Your task to perform on an android device: Check the weather Image 0: 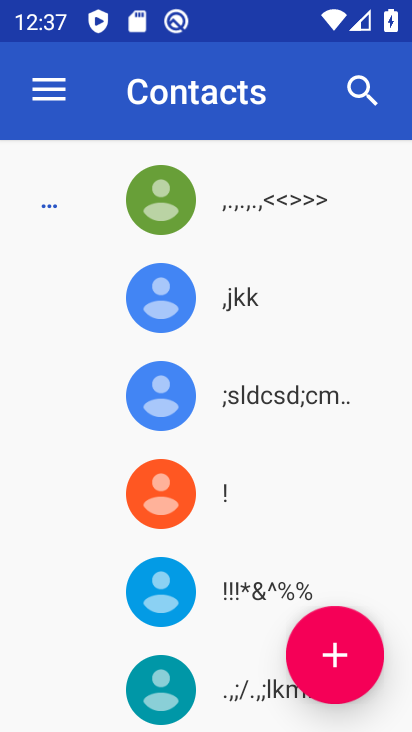
Step 0: press home button
Your task to perform on an android device: Check the weather Image 1: 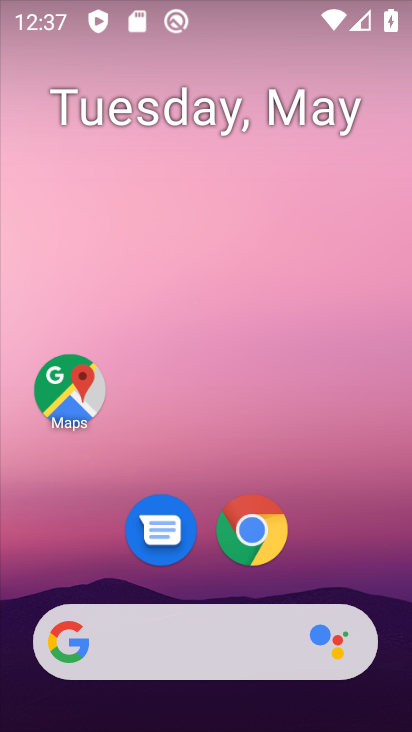
Step 1: drag from (198, 564) to (234, 206)
Your task to perform on an android device: Check the weather Image 2: 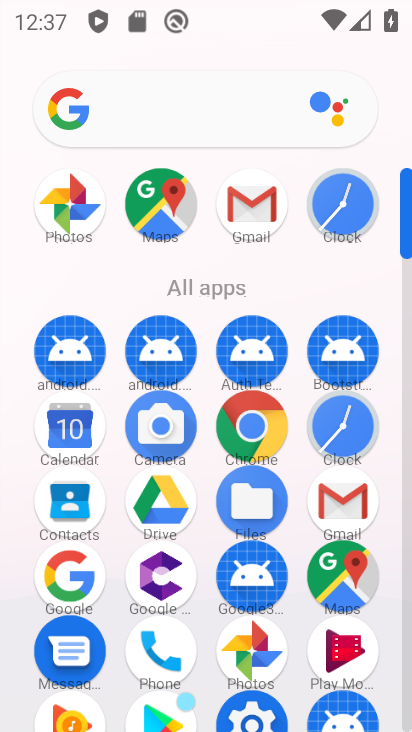
Step 2: drag from (123, 701) to (148, 420)
Your task to perform on an android device: Check the weather Image 3: 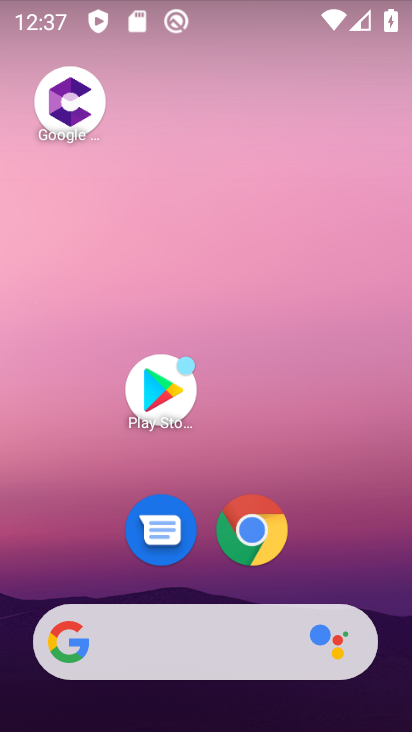
Step 3: drag from (195, 591) to (214, 168)
Your task to perform on an android device: Check the weather Image 4: 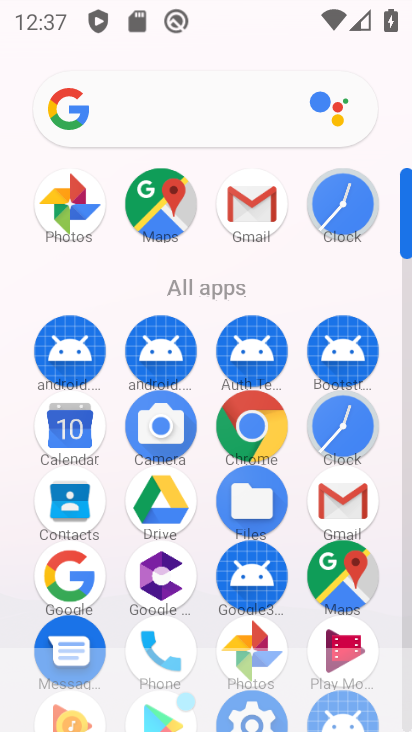
Step 4: drag from (206, 673) to (229, 373)
Your task to perform on an android device: Check the weather Image 5: 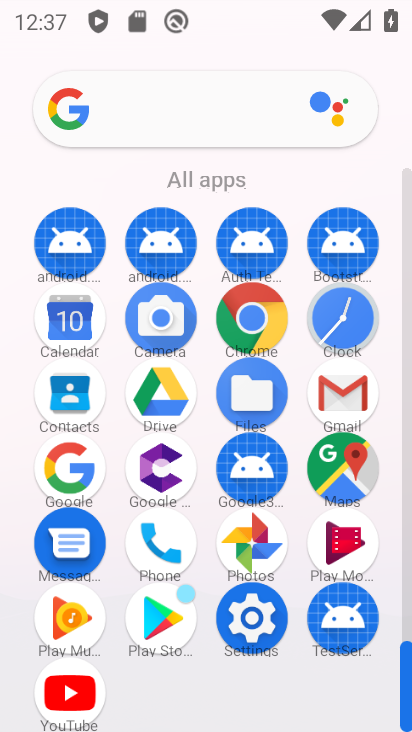
Step 5: click (250, 321)
Your task to perform on an android device: Check the weather Image 6: 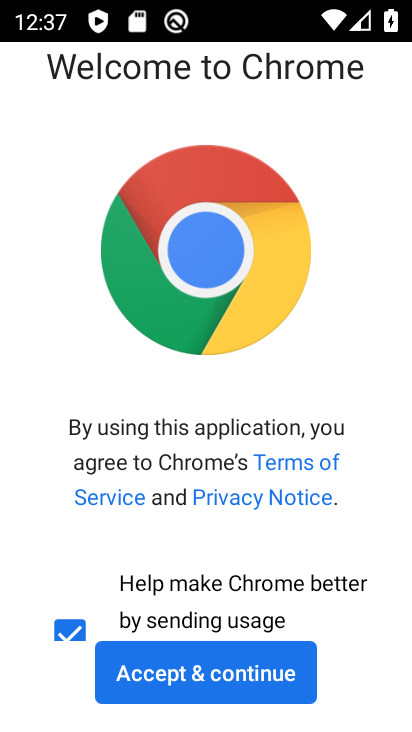
Step 6: click (146, 691)
Your task to perform on an android device: Check the weather Image 7: 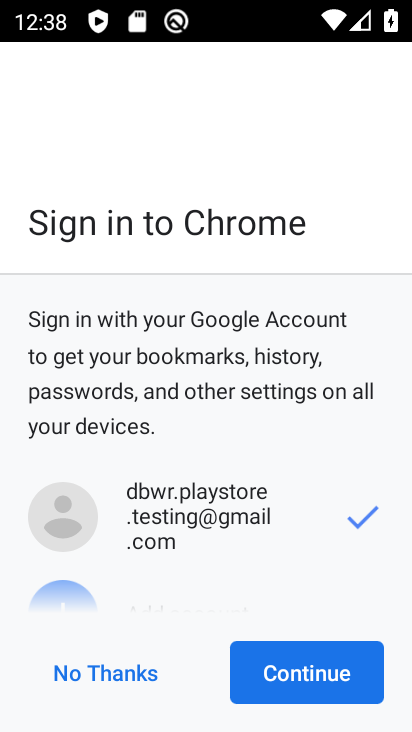
Step 7: click (323, 661)
Your task to perform on an android device: Check the weather Image 8: 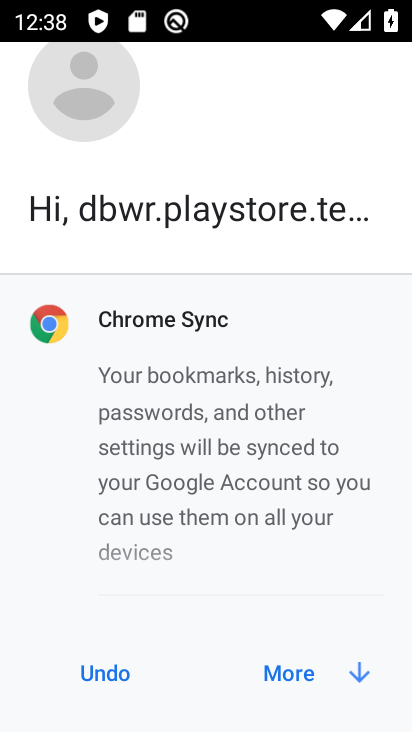
Step 8: click (302, 673)
Your task to perform on an android device: Check the weather Image 9: 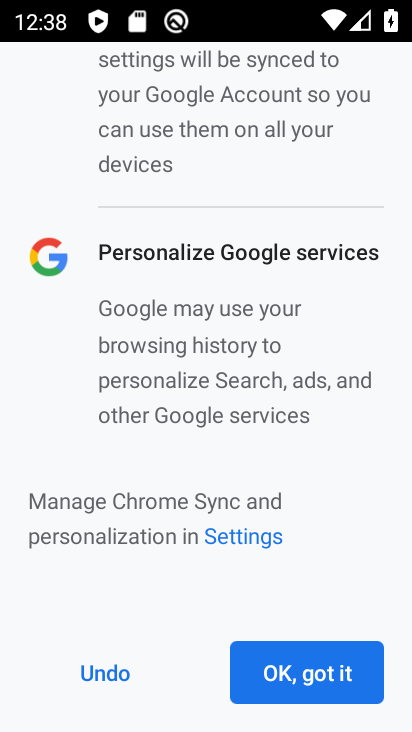
Step 9: click (314, 678)
Your task to perform on an android device: Check the weather Image 10: 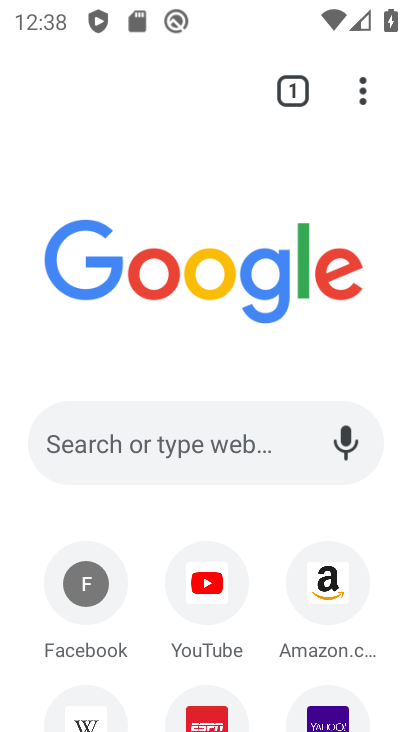
Step 10: click (133, 436)
Your task to perform on an android device: Check the weather Image 11: 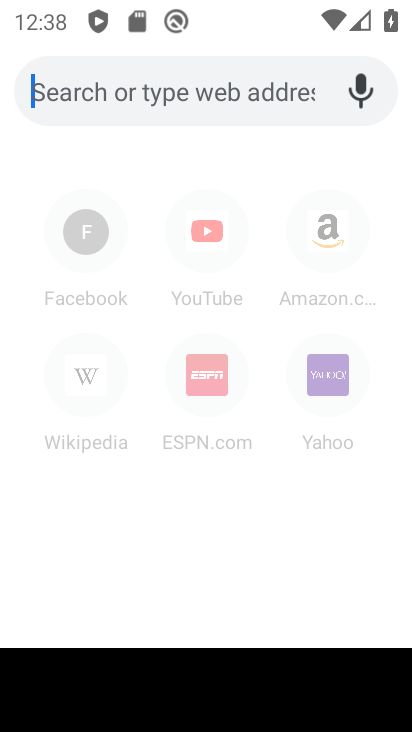
Step 11: type "weather"
Your task to perform on an android device: Check the weather Image 12: 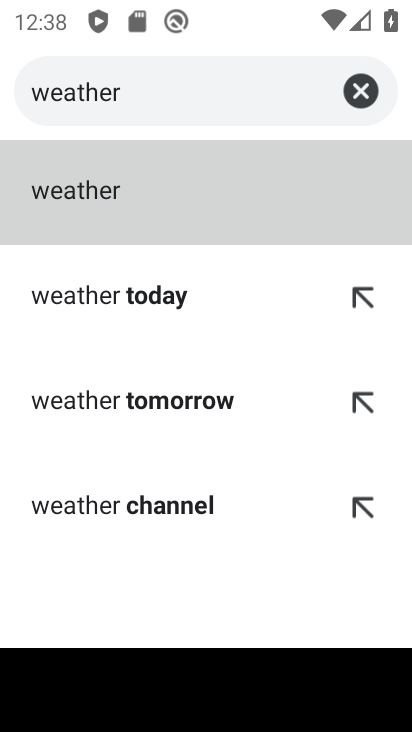
Step 12: click (195, 207)
Your task to perform on an android device: Check the weather Image 13: 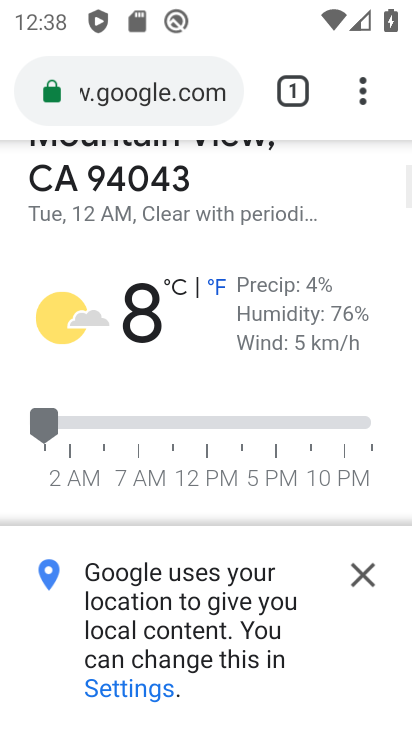
Step 13: task complete